Your task to perform on an android device: Go to location settings Image 0: 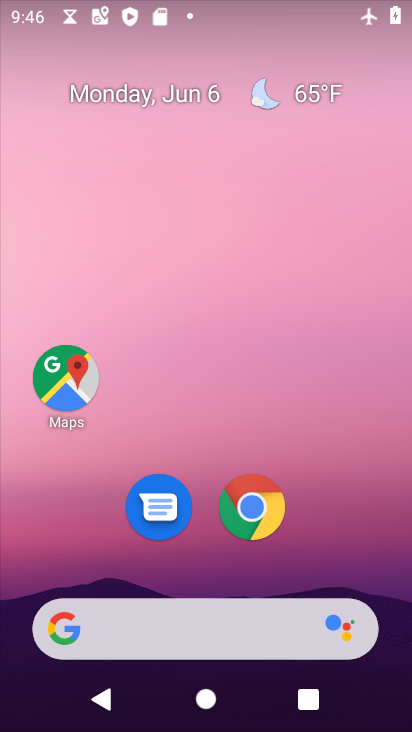
Step 0: drag from (238, 575) to (299, 230)
Your task to perform on an android device: Go to location settings Image 1: 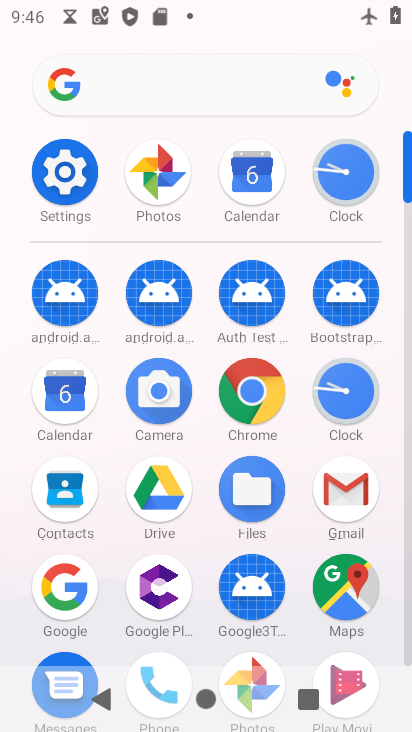
Step 1: click (45, 171)
Your task to perform on an android device: Go to location settings Image 2: 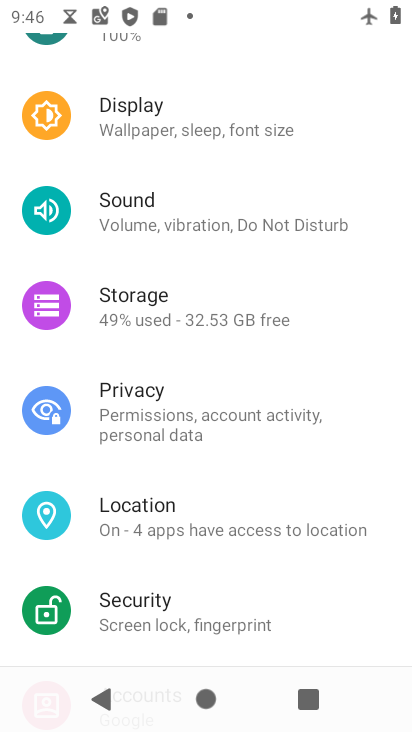
Step 2: click (158, 512)
Your task to perform on an android device: Go to location settings Image 3: 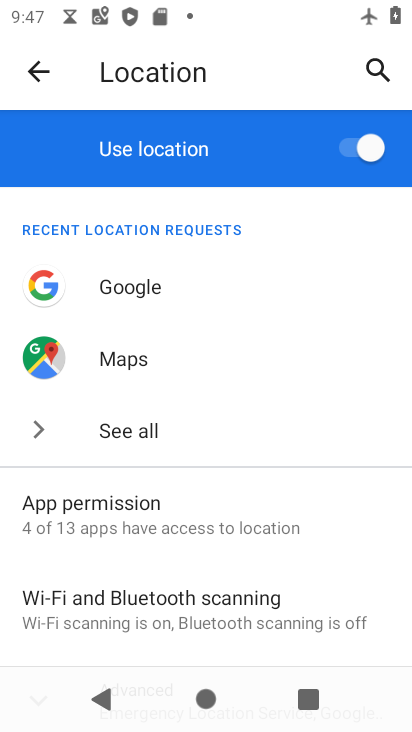
Step 3: task complete